Your task to perform on an android device: Clear all items from cart on walmart. Image 0: 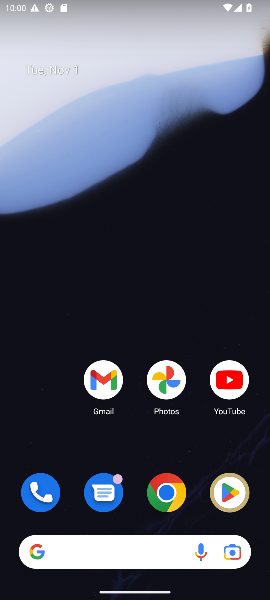
Step 0: click (180, 499)
Your task to perform on an android device: Clear all items from cart on walmart. Image 1: 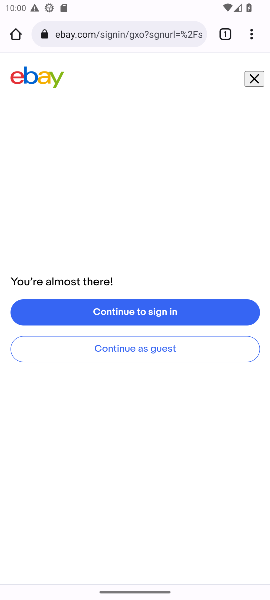
Step 1: click (90, 37)
Your task to perform on an android device: Clear all items from cart on walmart. Image 2: 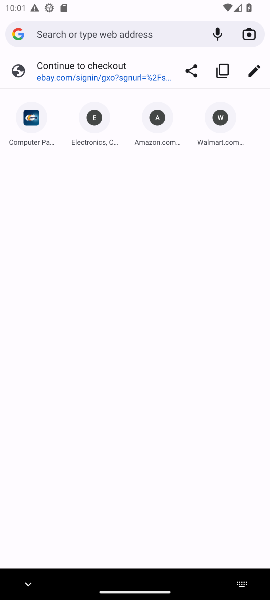
Step 2: type "walmart"
Your task to perform on an android device: Clear all items from cart on walmart. Image 3: 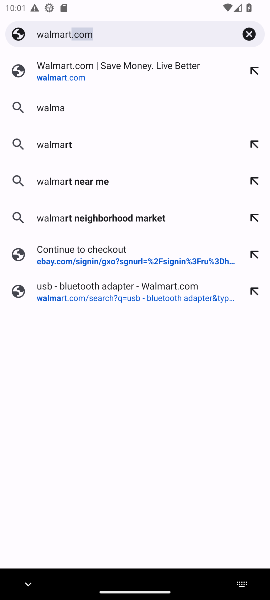
Step 3: type ""
Your task to perform on an android device: Clear all items from cart on walmart. Image 4: 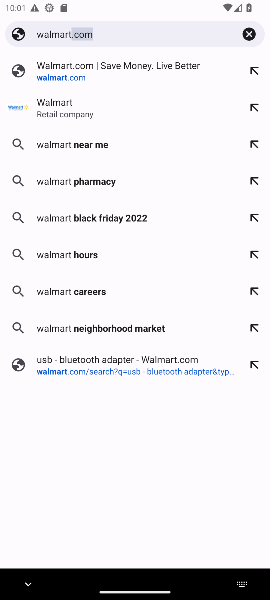
Step 4: click (72, 66)
Your task to perform on an android device: Clear all items from cart on walmart. Image 5: 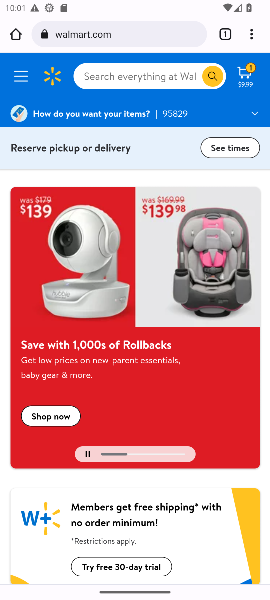
Step 5: click (250, 75)
Your task to perform on an android device: Clear all items from cart on walmart. Image 6: 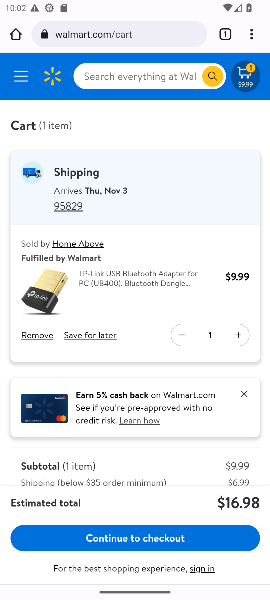
Step 6: drag from (143, 475) to (170, 217)
Your task to perform on an android device: Clear all items from cart on walmart. Image 7: 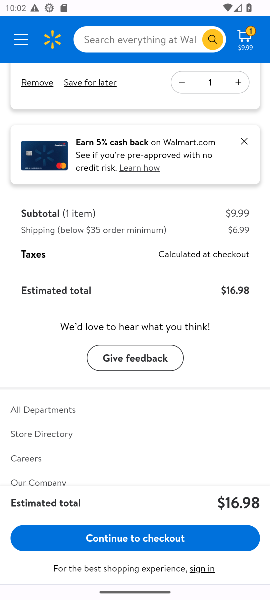
Step 7: click (249, 34)
Your task to perform on an android device: Clear all items from cart on walmart. Image 8: 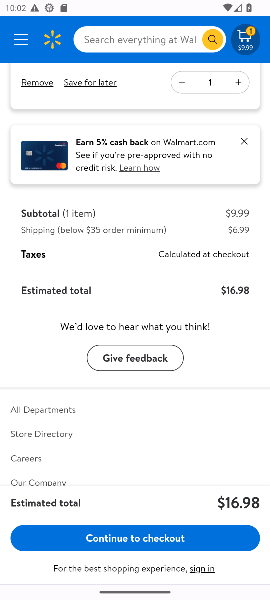
Step 8: drag from (131, 449) to (188, 502)
Your task to perform on an android device: Clear all items from cart on walmart. Image 9: 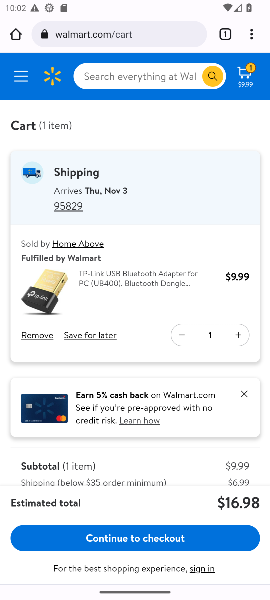
Step 9: click (41, 336)
Your task to perform on an android device: Clear all items from cart on walmart. Image 10: 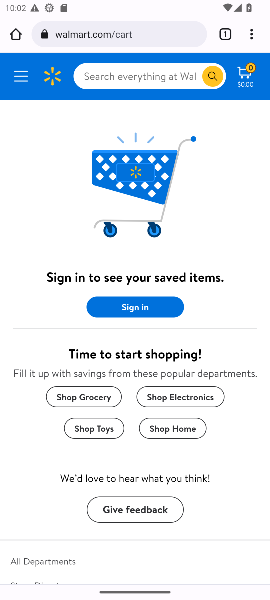
Step 10: press back button
Your task to perform on an android device: Clear all items from cart on walmart. Image 11: 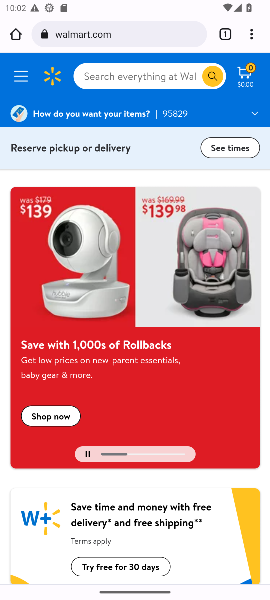
Step 11: click (254, 73)
Your task to perform on an android device: Clear all items from cart on walmart. Image 12: 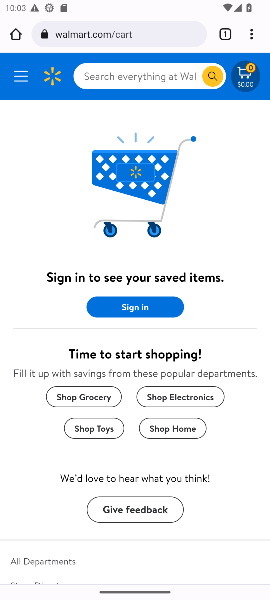
Step 12: task complete